Your task to perform on an android device: see creations saved in the google photos Image 0: 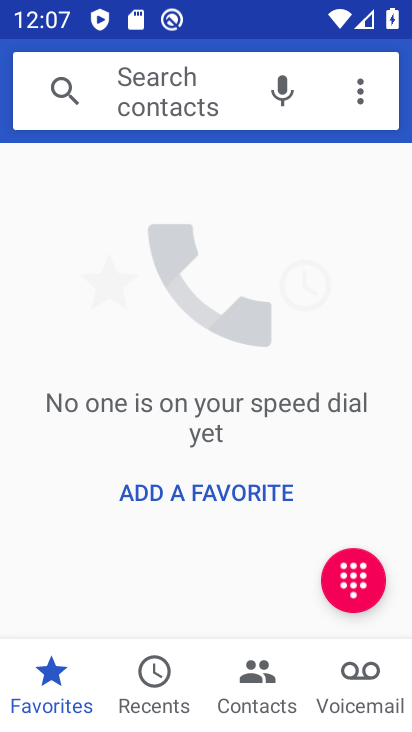
Step 0: press home button
Your task to perform on an android device: see creations saved in the google photos Image 1: 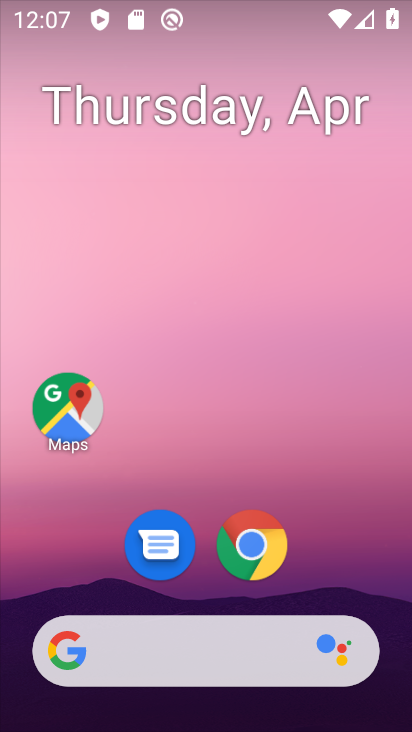
Step 1: drag from (355, 571) to (296, 94)
Your task to perform on an android device: see creations saved in the google photos Image 2: 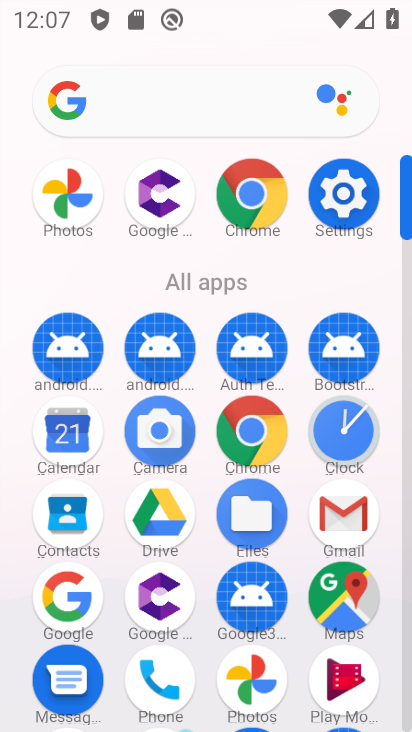
Step 2: click (74, 202)
Your task to perform on an android device: see creations saved in the google photos Image 3: 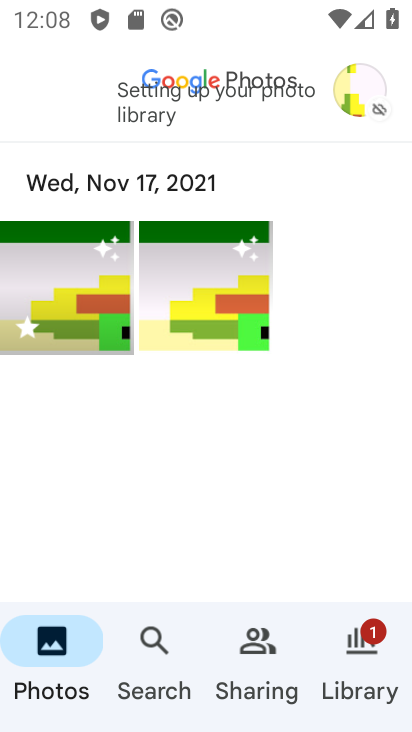
Step 3: click (244, 655)
Your task to perform on an android device: see creations saved in the google photos Image 4: 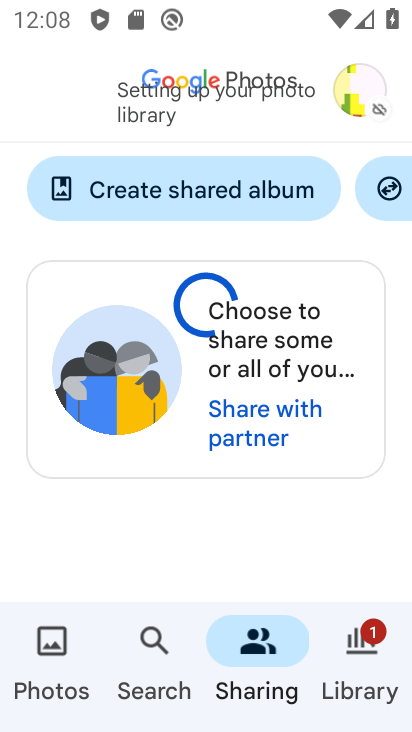
Step 4: click (368, 663)
Your task to perform on an android device: see creations saved in the google photos Image 5: 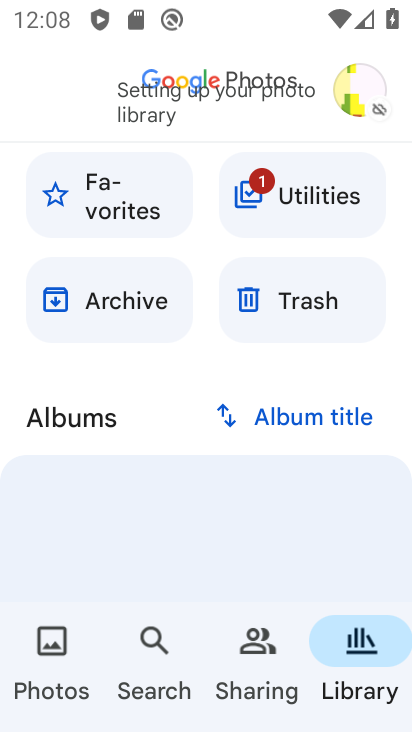
Step 5: click (277, 656)
Your task to perform on an android device: see creations saved in the google photos Image 6: 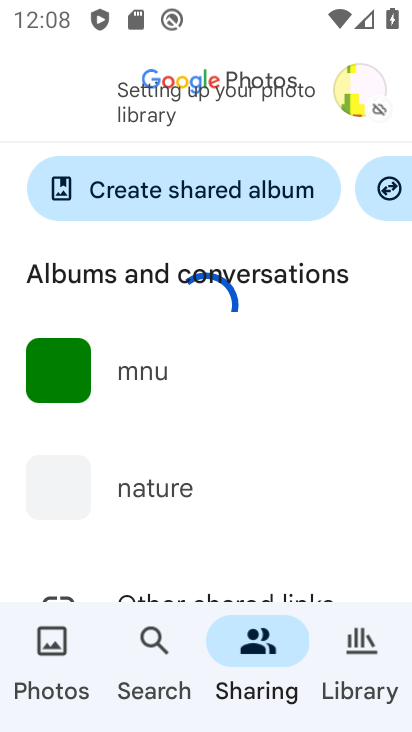
Step 6: task complete